Your task to perform on an android device: Search for pizza restaurants on Maps Image 0: 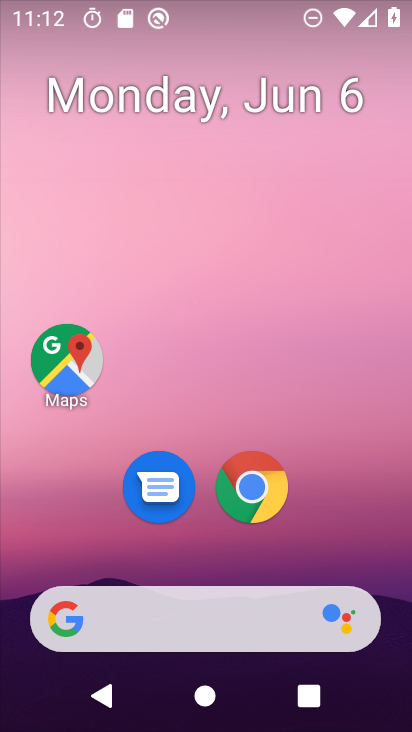
Step 0: drag from (407, 624) to (346, 104)
Your task to perform on an android device: Search for pizza restaurants on Maps Image 1: 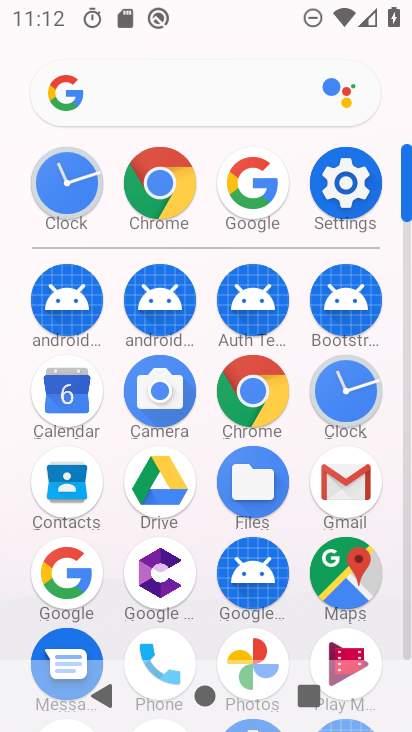
Step 1: click (356, 556)
Your task to perform on an android device: Search for pizza restaurants on Maps Image 2: 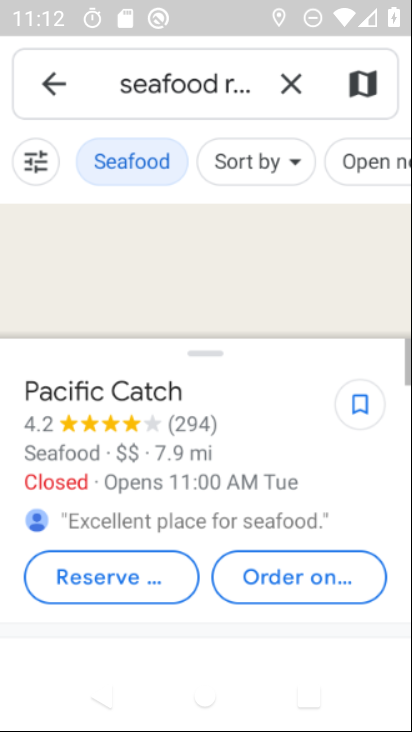
Step 2: click (280, 92)
Your task to perform on an android device: Search for pizza restaurants on Maps Image 3: 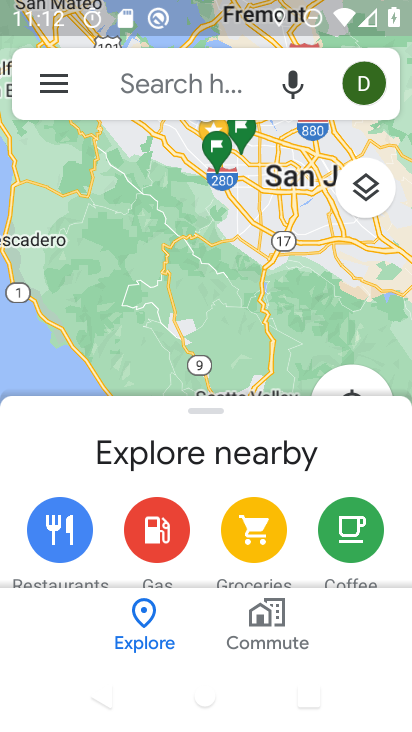
Step 3: click (146, 81)
Your task to perform on an android device: Search for pizza restaurants on Maps Image 4: 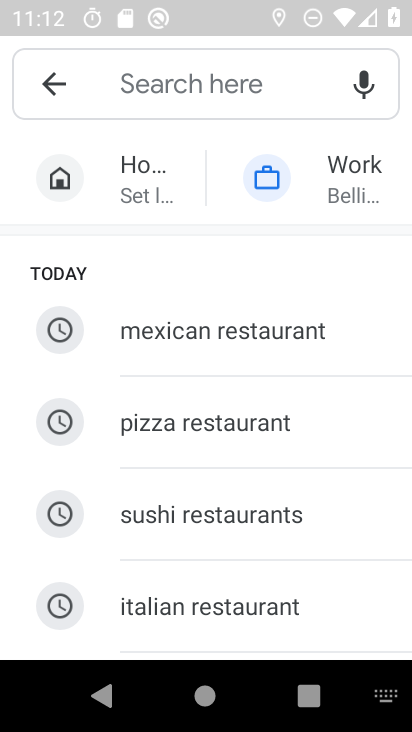
Step 4: click (245, 424)
Your task to perform on an android device: Search for pizza restaurants on Maps Image 5: 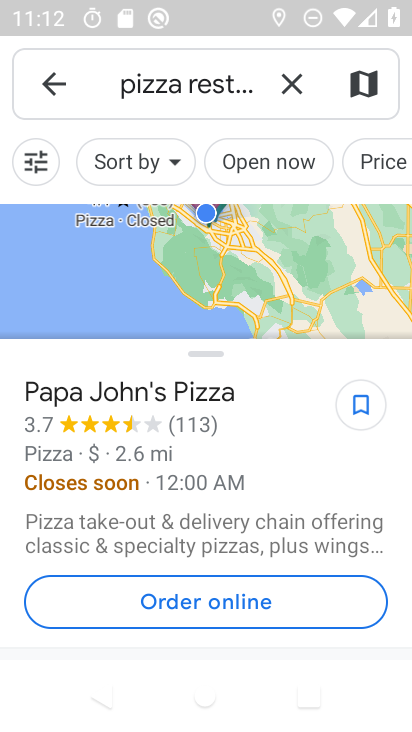
Step 5: task complete